Your task to perform on an android device: change the clock display to show seconds Image 0: 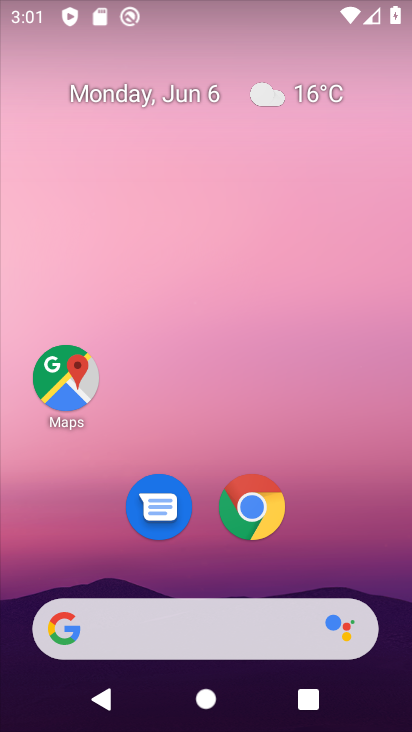
Step 0: drag from (195, 551) to (199, 225)
Your task to perform on an android device: change the clock display to show seconds Image 1: 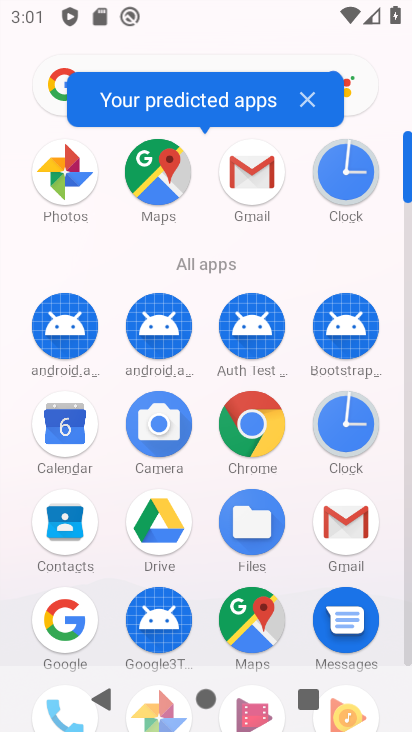
Step 1: click (336, 171)
Your task to perform on an android device: change the clock display to show seconds Image 2: 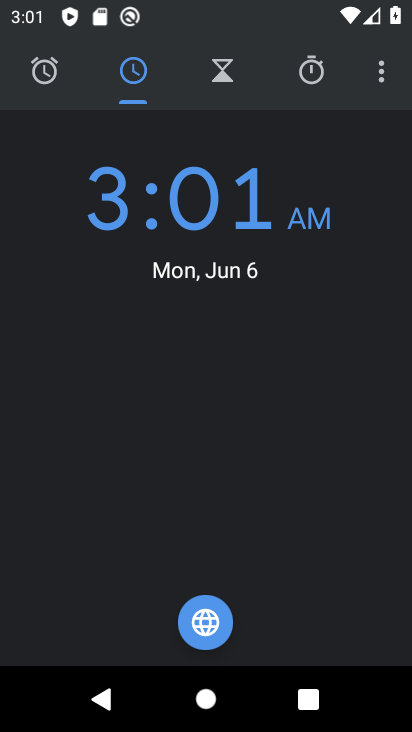
Step 2: click (373, 66)
Your task to perform on an android device: change the clock display to show seconds Image 3: 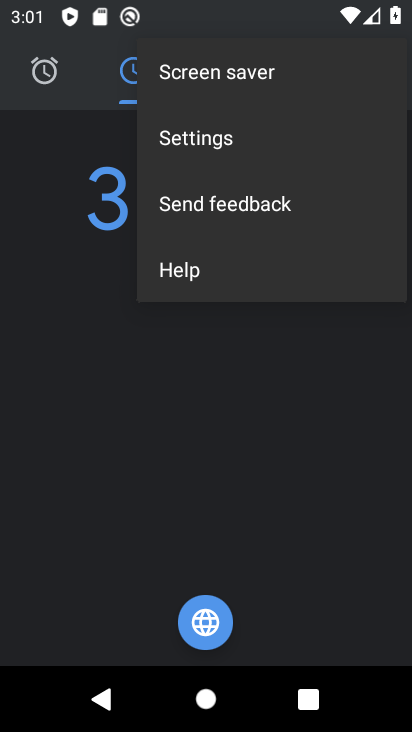
Step 3: click (235, 134)
Your task to perform on an android device: change the clock display to show seconds Image 4: 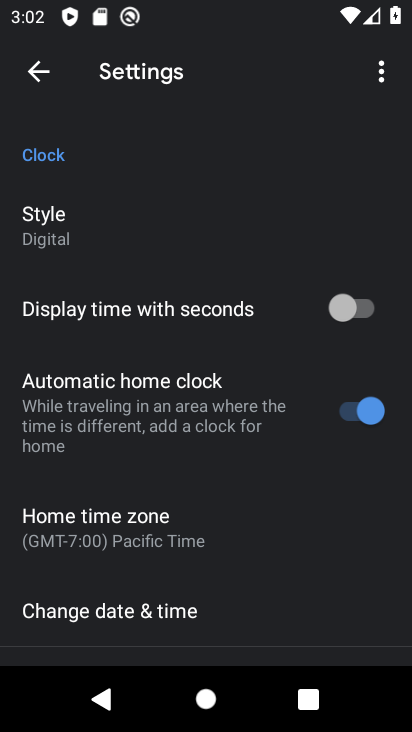
Step 4: click (367, 314)
Your task to perform on an android device: change the clock display to show seconds Image 5: 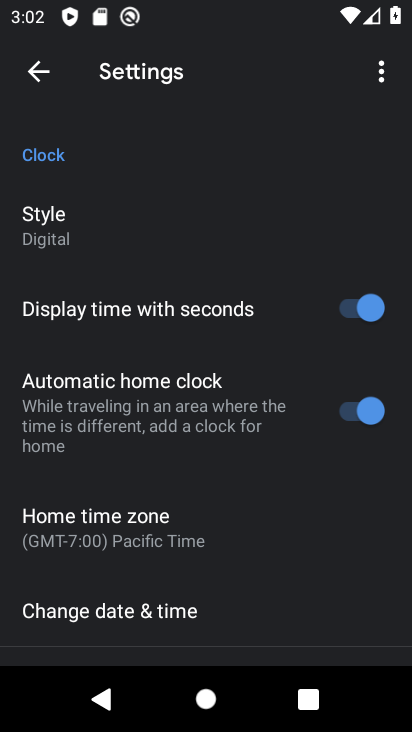
Step 5: task complete